Your task to perform on an android device: Is it going to rain today? Image 0: 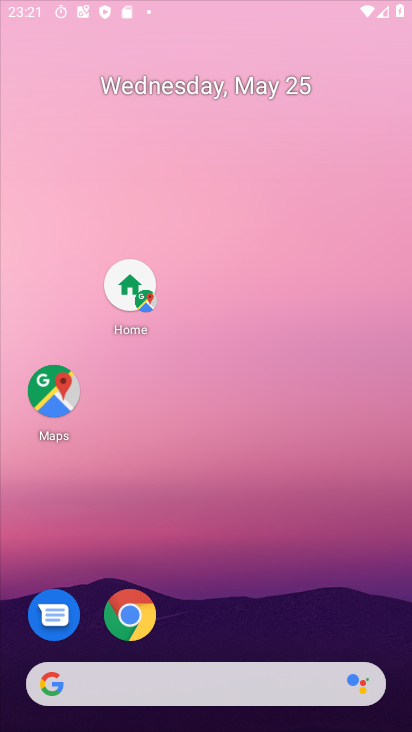
Step 0: press home button
Your task to perform on an android device: Is it going to rain today? Image 1: 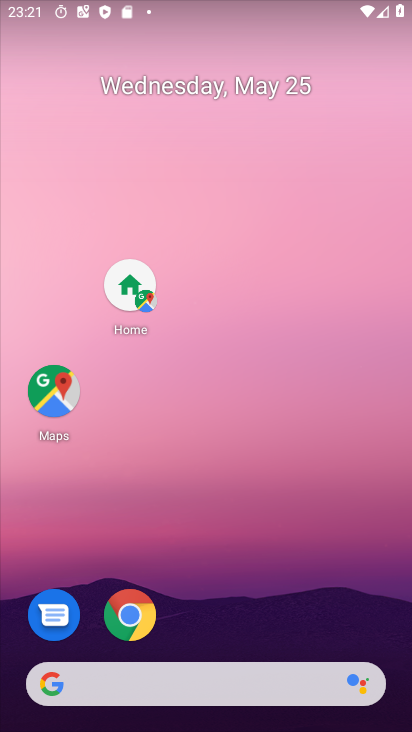
Step 1: click (49, 685)
Your task to perform on an android device: Is it going to rain today? Image 2: 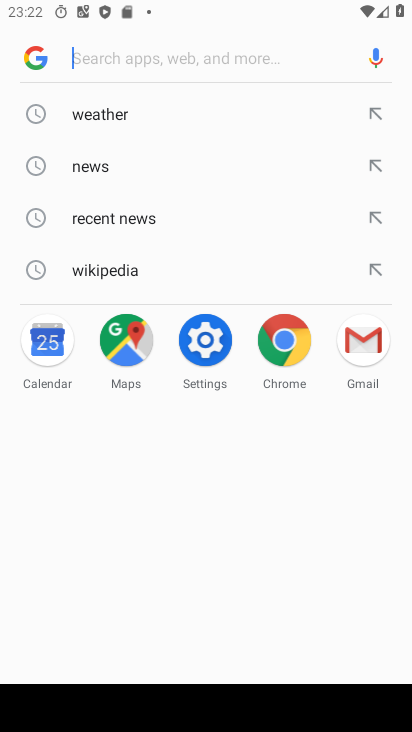
Step 2: type "rain today?"
Your task to perform on an android device: Is it going to rain today? Image 3: 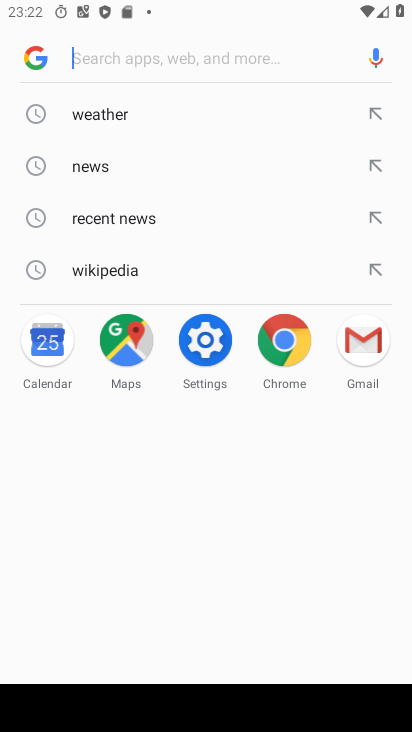
Step 3: click (174, 62)
Your task to perform on an android device: Is it going to rain today? Image 4: 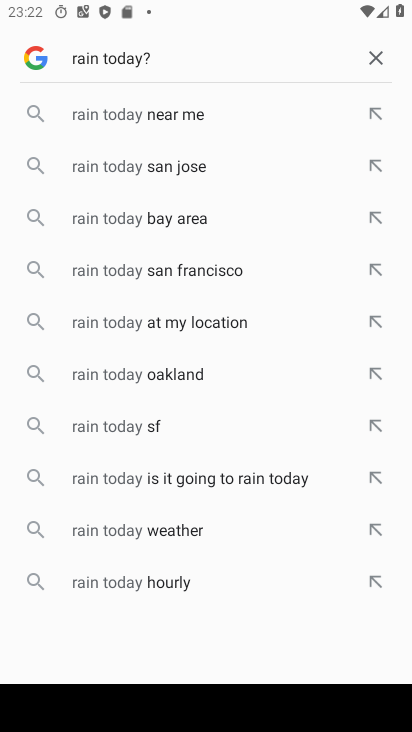
Step 4: click (198, 47)
Your task to perform on an android device: Is it going to rain today? Image 5: 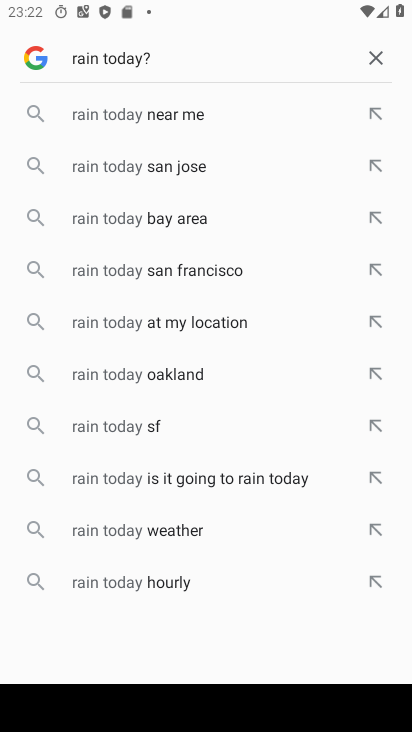
Step 5: click (376, 50)
Your task to perform on an android device: Is it going to rain today? Image 6: 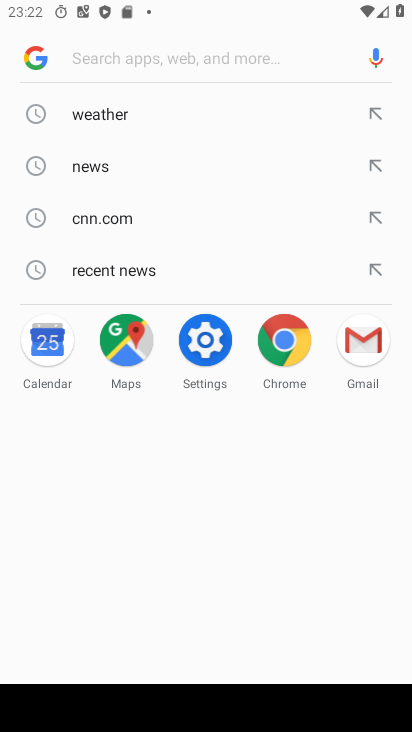
Step 6: click (376, 53)
Your task to perform on an android device: Is it going to rain today? Image 7: 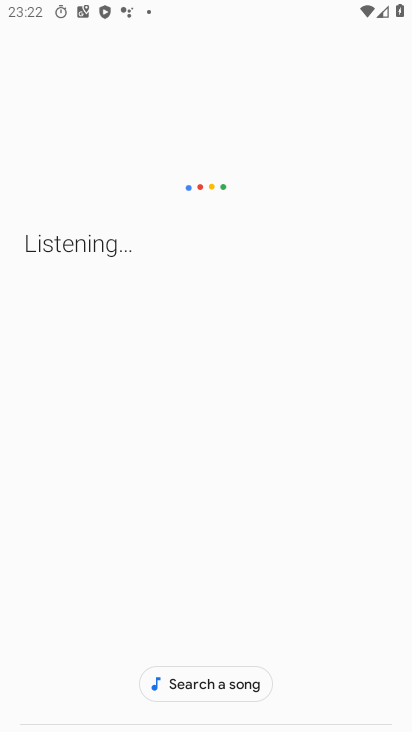
Step 7: press home button
Your task to perform on an android device: Is it going to rain today? Image 8: 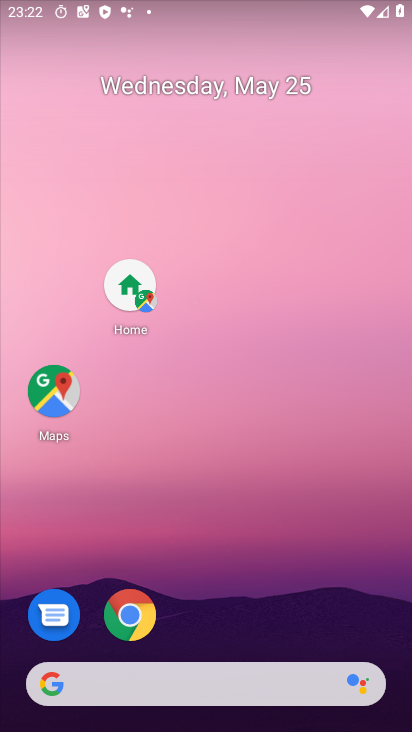
Step 8: click (56, 699)
Your task to perform on an android device: Is it going to rain today? Image 9: 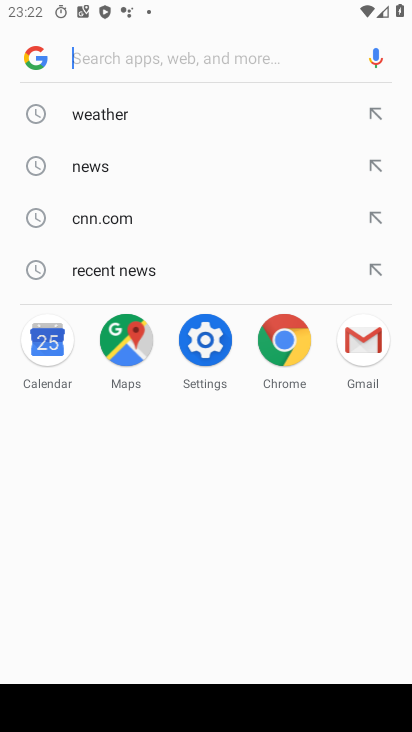
Step 9: type "Is it going to rain today?"
Your task to perform on an android device: Is it going to rain today? Image 10: 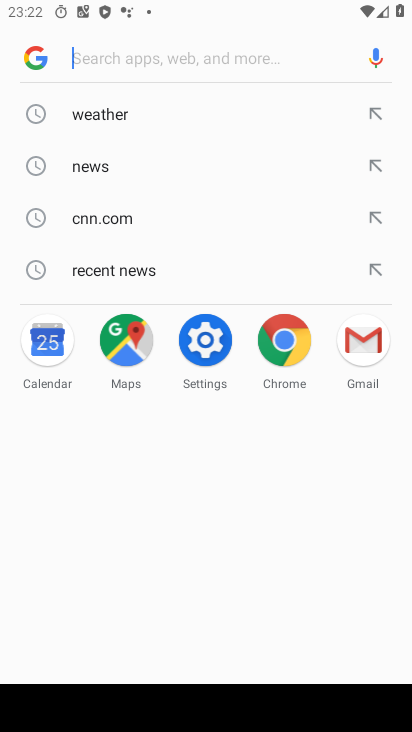
Step 10: click (194, 48)
Your task to perform on an android device: Is it going to rain today? Image 11: 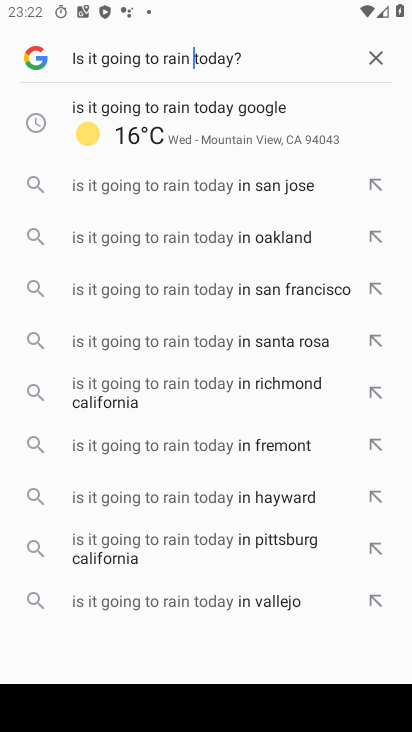
Step 11: click (211, 105)
Your task to perform on an android device: Is it going to rain today? Image 12: 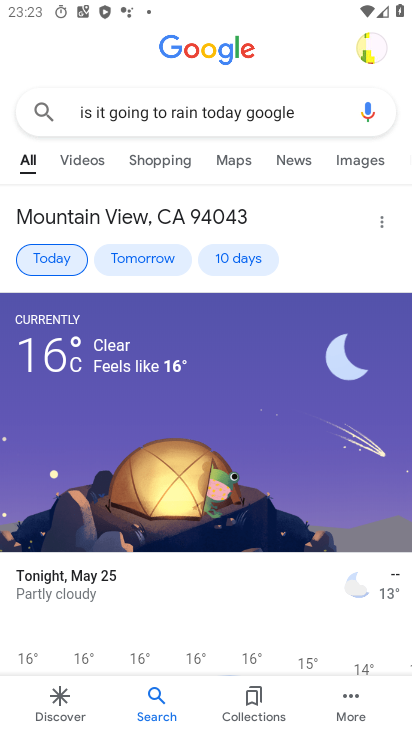
Step 12: task complete